Your task to perform on an android device: open the mobile data screen to see how much data has been used Image 0: 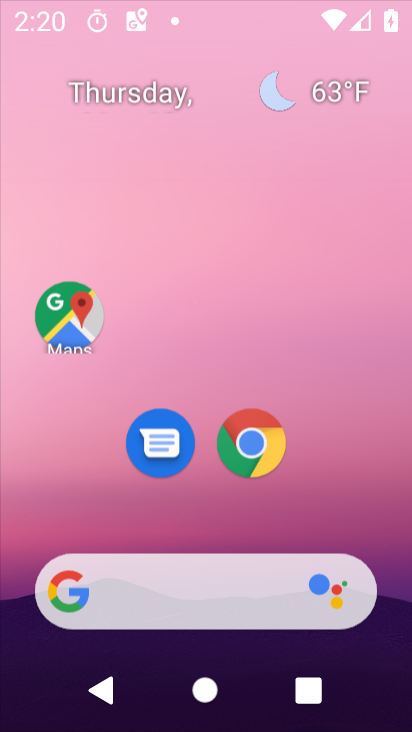
Step 0: drag from (166, 585) to (251, 47)
Your task to perform on an android device: open the mobile data screen to see how much data has been used Image 1: 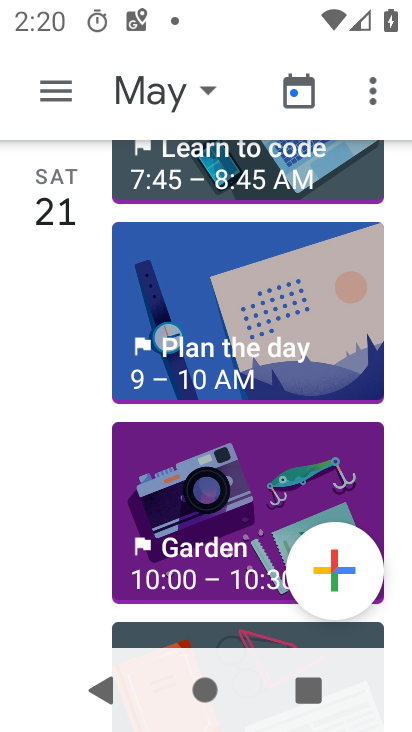
Step 1: press home button
Your task to perform on an android device: open the mobile data screen to see how much data has been used Image 2: 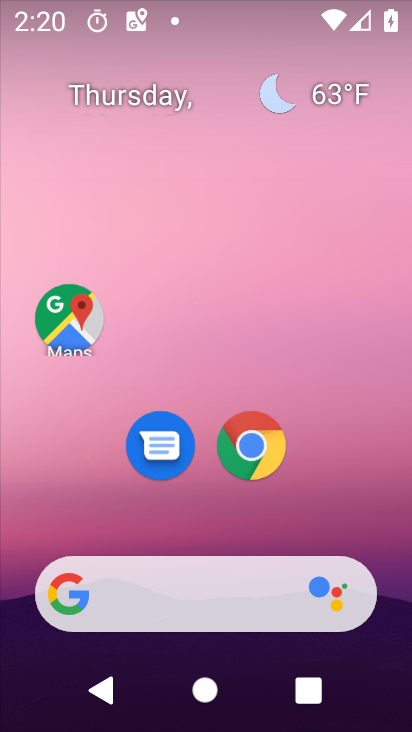
Step 2: drag from (173, 565) to (241, 24)
Your task to perform on an android device: open the mobile data screen to see how much data has been used Image 3: 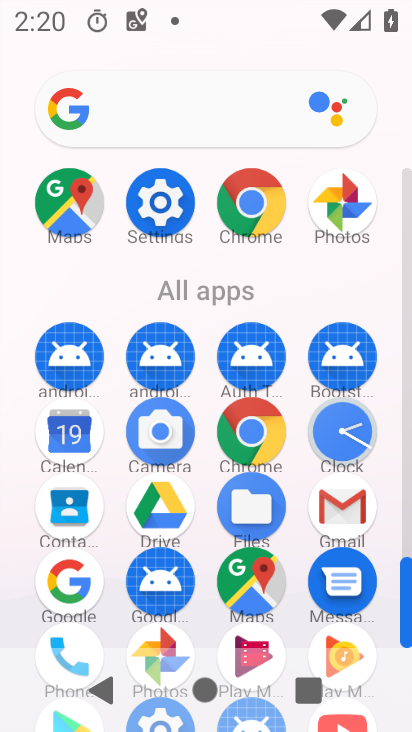
Step 3: click (161, 206)
Your task to perform on an android device: open the mobile data screen to see how much data has been used Image 4: 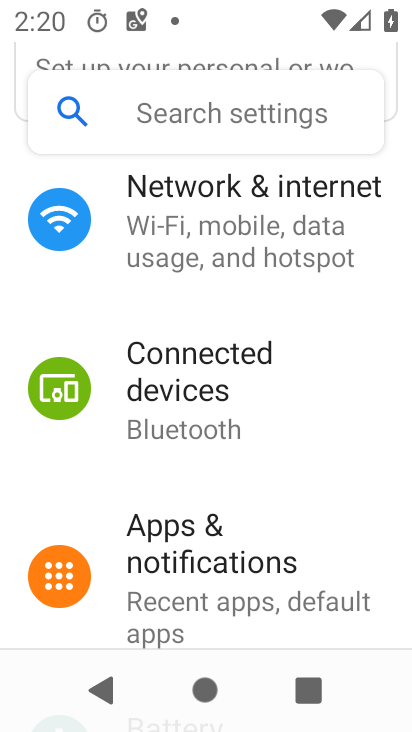
Step 4: click (191, 257)
Your task to perform on an android device: open the mobile data screen to see how much data has been used Image 5: 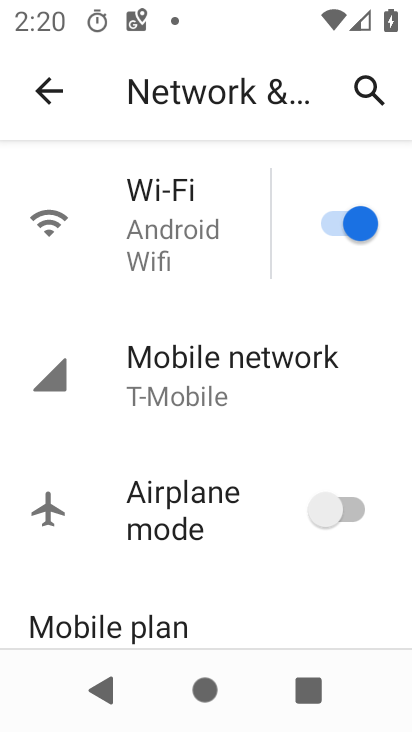
Step 5: click (190, 383)
Your task to perform on an android device: open the mobile data screen to see how much data has been used Image 6: 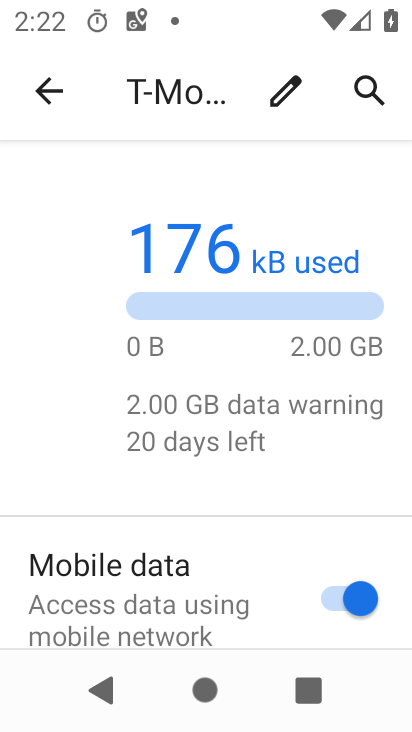
Step 6: task complete